Your task to perform on an android device: change the clock display to show seconds Image 0: 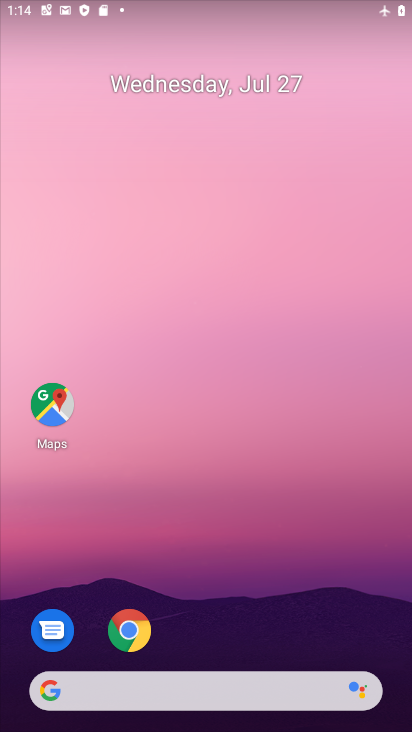
Step 0: drag from (388, 629) to (354, 73)
Your task to perform on an android device: change the clock display to show seconds Image 1: 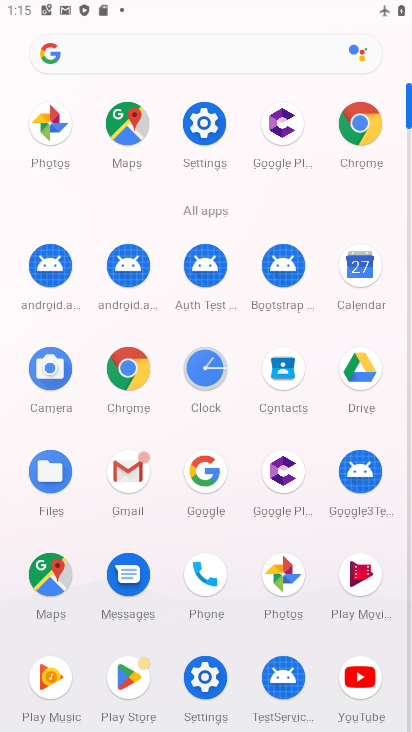
Step 1: click (214, 126)
Your task to perform on an android device: change the clock display to show seconds Image 2: 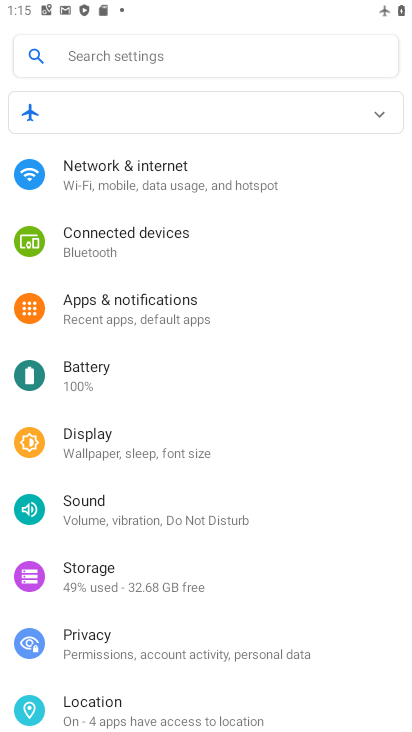
Step 2: click (81, 434)
Your task to perform on an android device: change the clock display to show seconds Image 3: 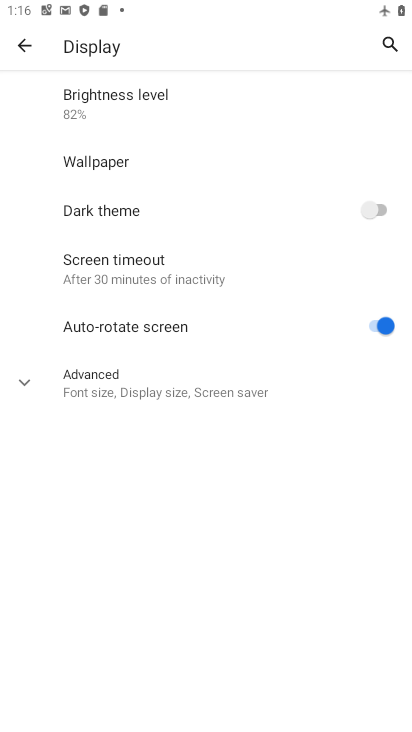
Step 3: press home button
Your task to perform on an android device: change the clock display to show seconds Image 4: 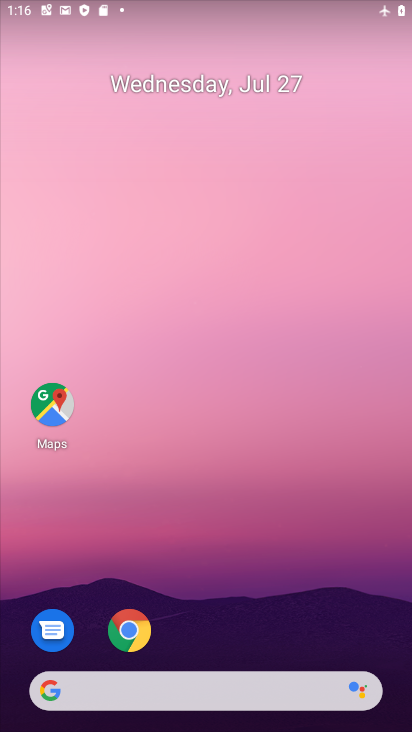
Step 4: drag from (396, 699) to (341, 171)
Your task to perform on an android device: change the clock display to show seconds Image 5: 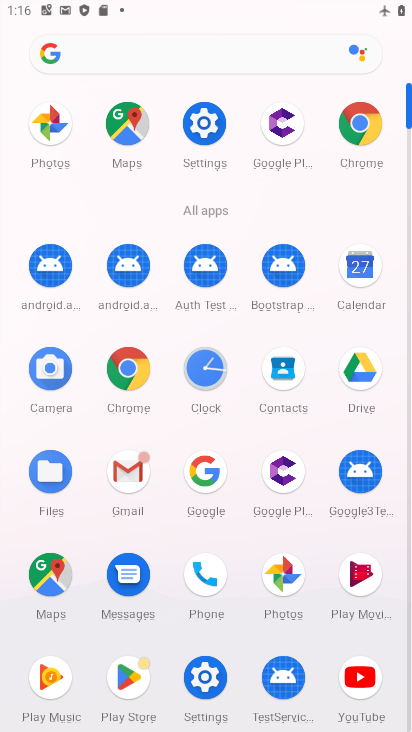
Step 5: click (203, 134)
Your task to perform on an android device: change the clock display to show seconds Image 6: 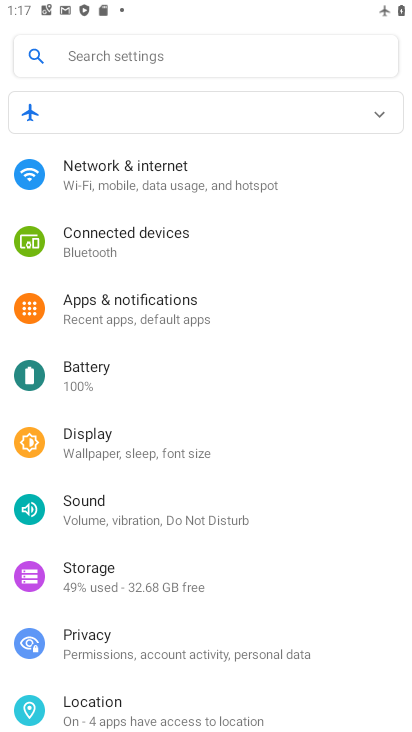
Step 6: task complete